Your task to perform on an android device: open app "Spotify: Music and Podcasts" (install if not already installed) Image 0: 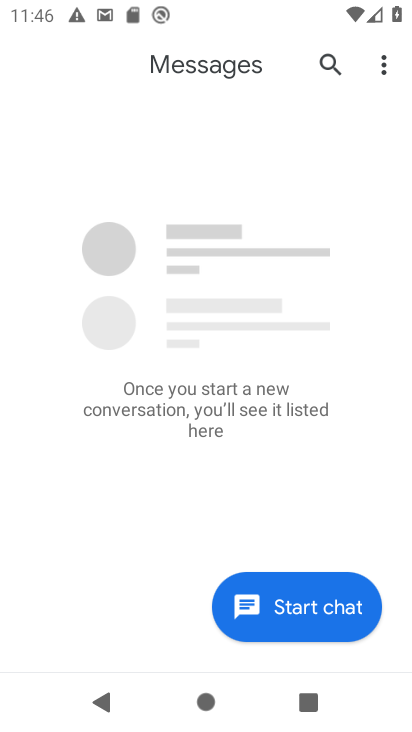
Step 0: press home button
Your task to perform on an android device: open app "Spotify: Music and Podcasts" (install if not already installed) Image 1: 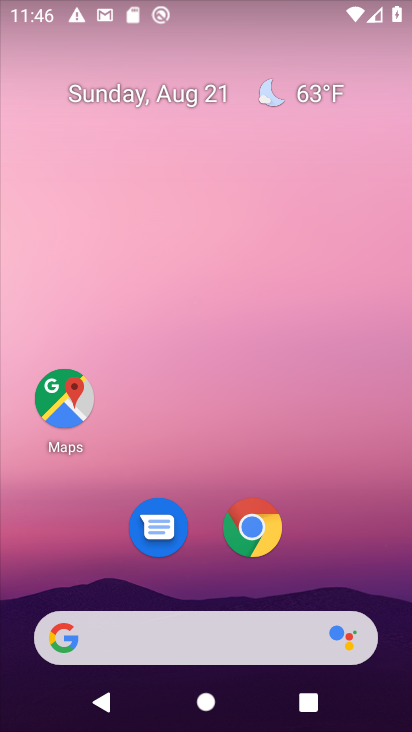
Step 1: drag from (331, 598) to (288, 14)
Your task to perform on an android device: open app "Spotify: Music and Podcasts" (install if not already installed) Image 2: 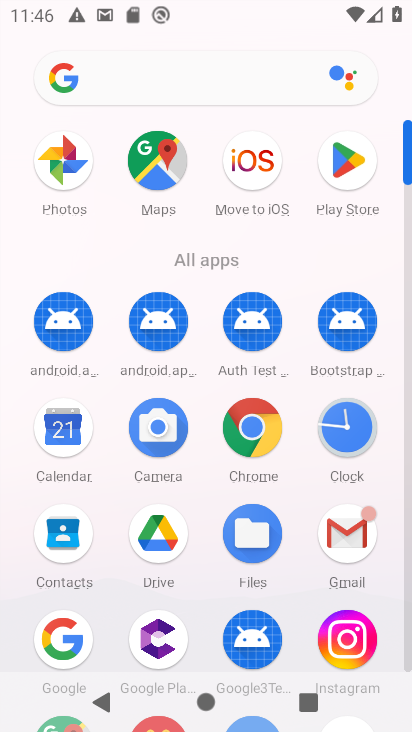
Step 2: click (367, 160)
Your task to perform on an android device: open app "Spotify: Music and Podcasts" (install if not already installed) Image 3: 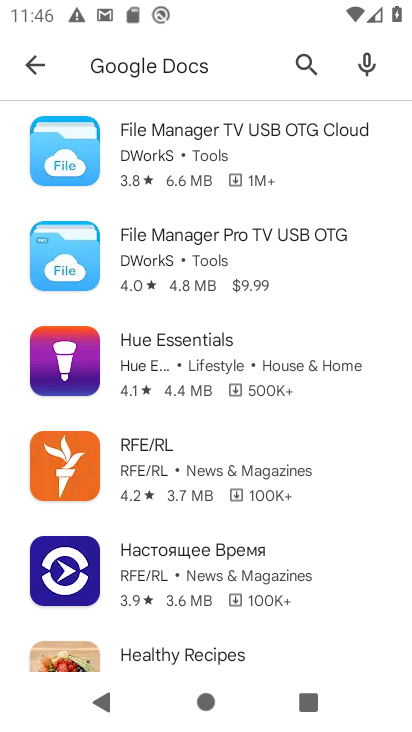
Step 3: press back button
Your task to perform on an android device: open app "Spotify: Music and Podcasts" (install if not already installed) Image 4: 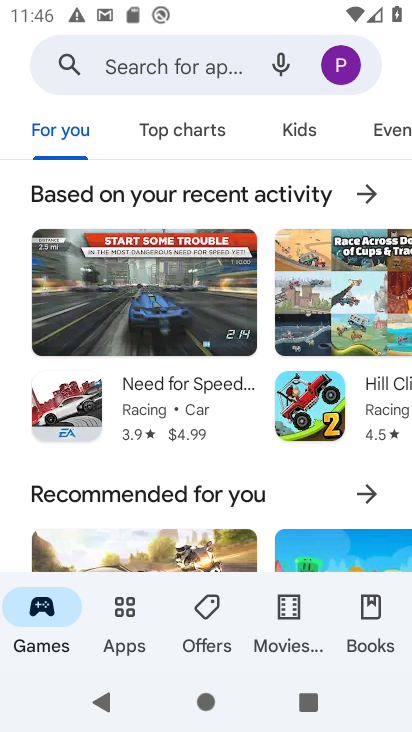
Step 4: click (131, 69)
Your task to perform on an android device: open app "Spotify: Music and Podcasts" (install if not already installed) Image 5: 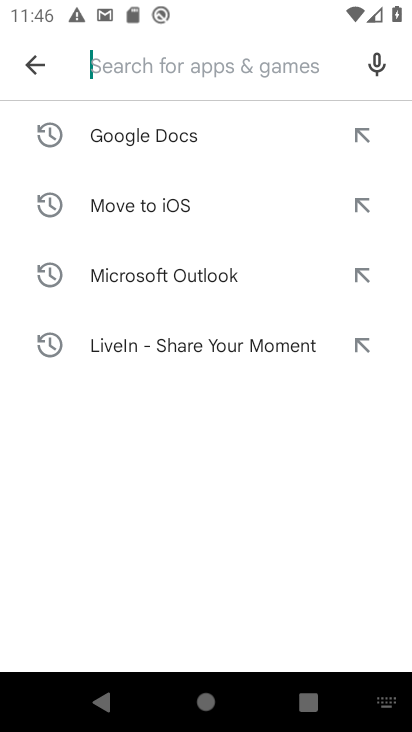
Step 5: type "Spotify: Music and Podcast"
Your task to perform on an android device: open app "Spotify: Music and Podcasts" (install if not already installed) Image 6: 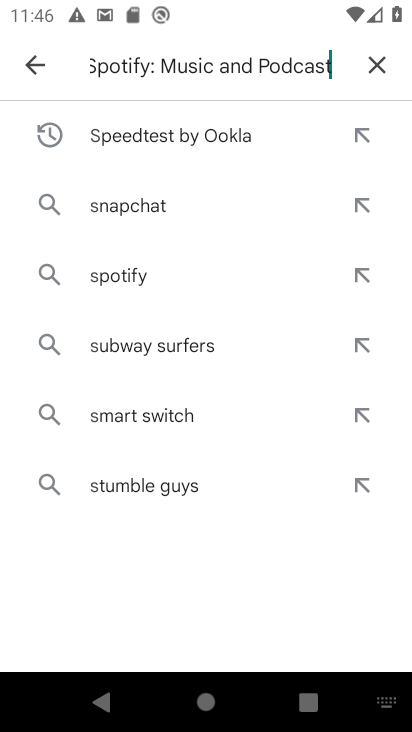
Step 6: press enter
Your task to perform on an android device: open app "Spotify: Music and Podcasts" (install if not already installed) Image 7: 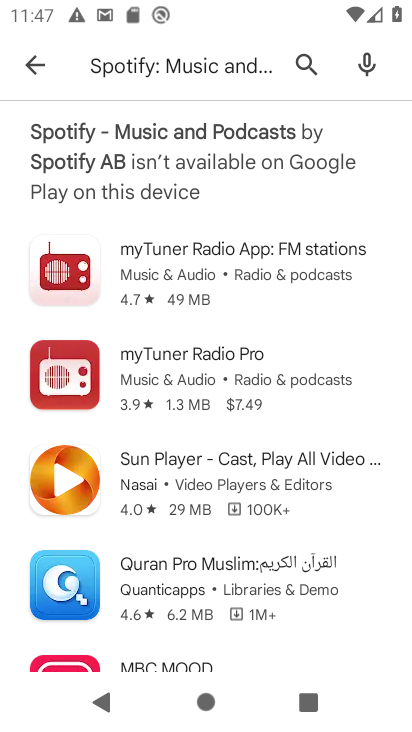
Step 7: click (93, 132)
Your task to perform on an android device: open app "Spotify: Music and Podcasts" (install if not already installed) Image 8: 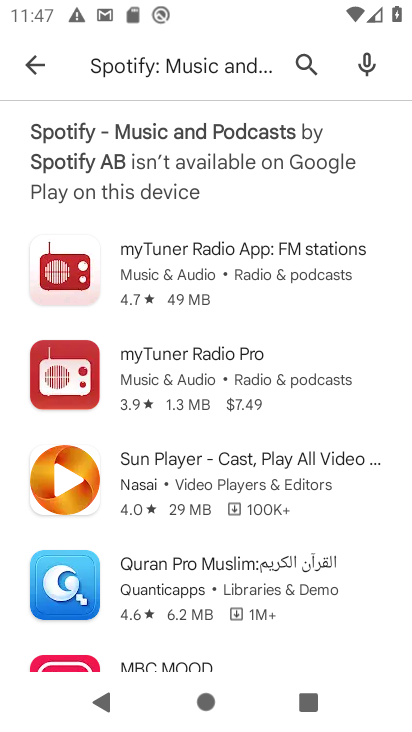
Step 8: task complete